Your task to perform on an android device: Toggle the flashlight Image 0: 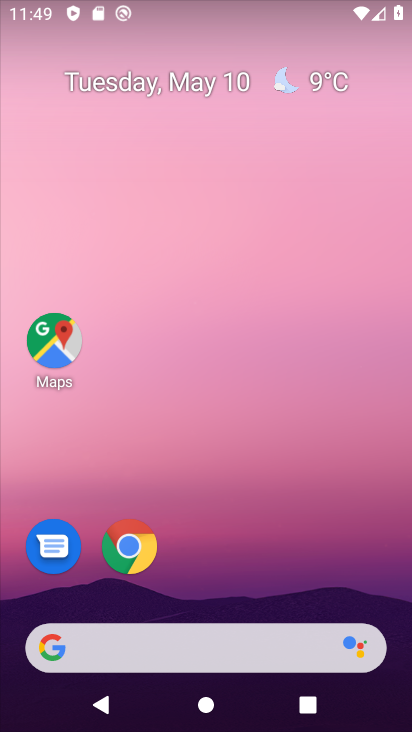
Step 0: drag from (193, 588) to (254, 169)
Your task to perform on an android device: Toggle the flashlight Image 1: 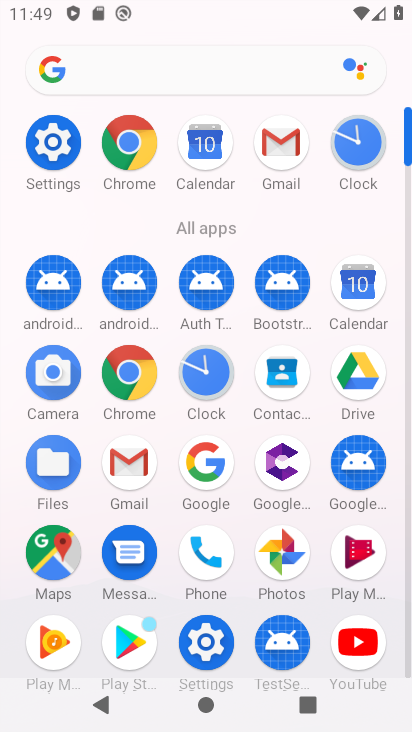
Step 1: task complete